Your task to perform on an android device: Open Google Maps Image 0: 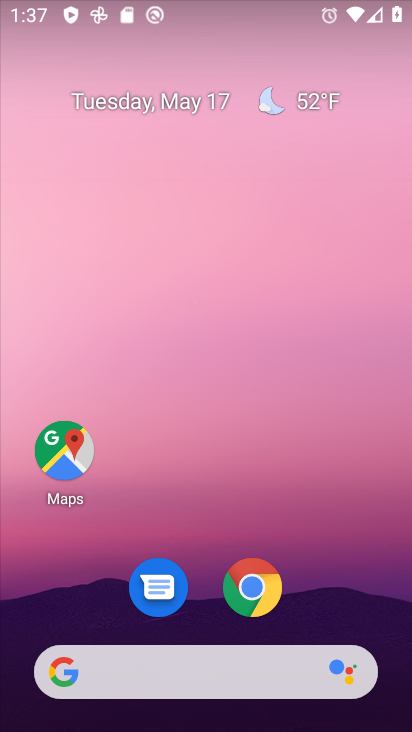
Step 0: click (58, 450)
Your task to perform on an android device: Open Google Maps Image 1: 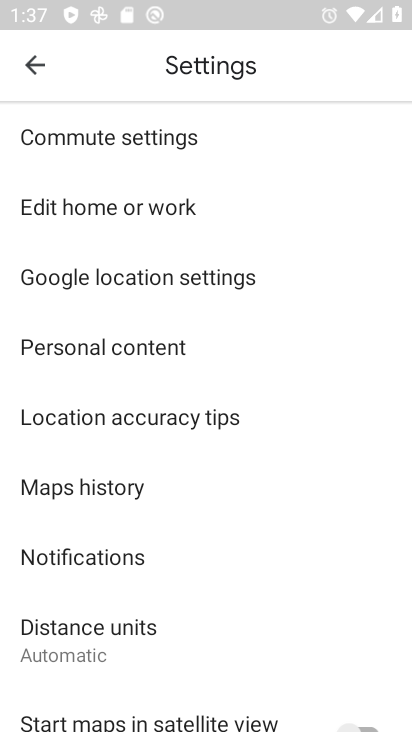
Step 1: click (38, 74)
Your task to perform on an android device: Open Google Maps Image 2: 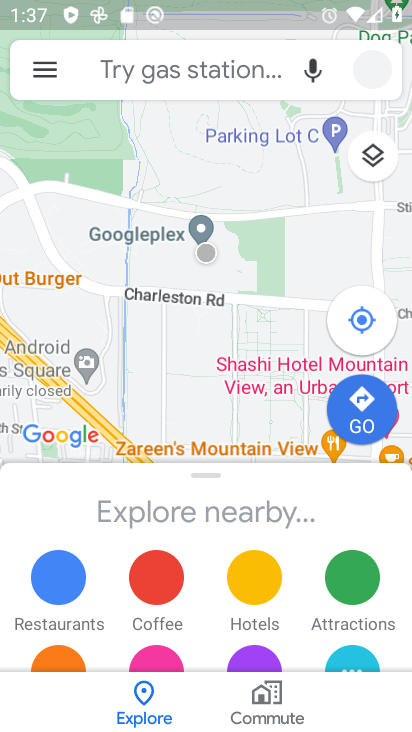
Step 2: click (38, 74)
Your task to perform on an android device: Open Google Maps Image 3: 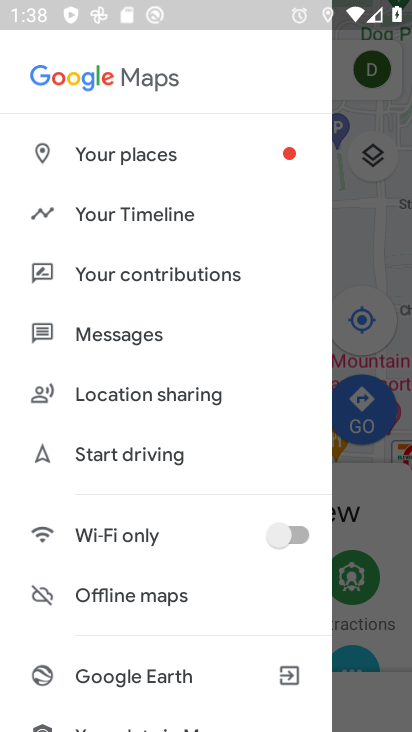
Step 3: click (352, 160)
Your task to perform on an android device: Open Google Maps Image 4: 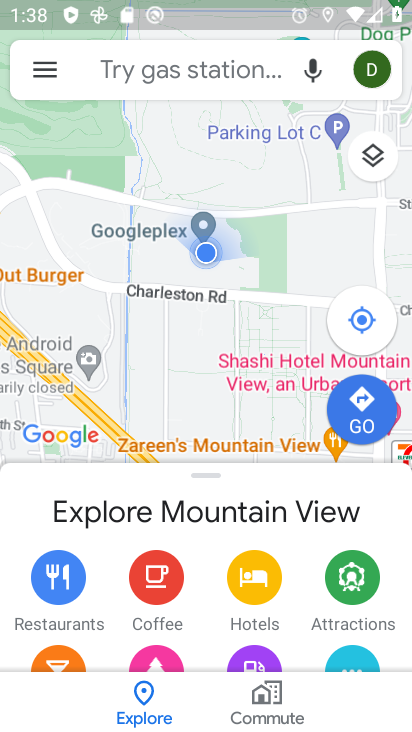
Step 4: task complete